Your task to perform on an android device: Toggle the flashlight Image 0: 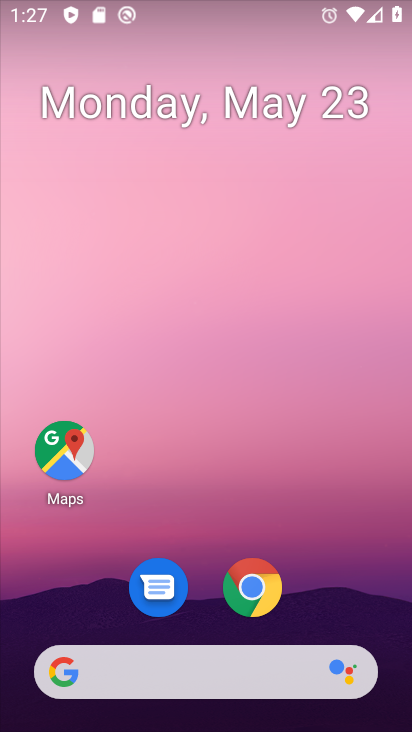
Step 0: drag from (341, 588) to (327, 78)
Your task to perform on an android device: Toggle the flashlight Image 1: 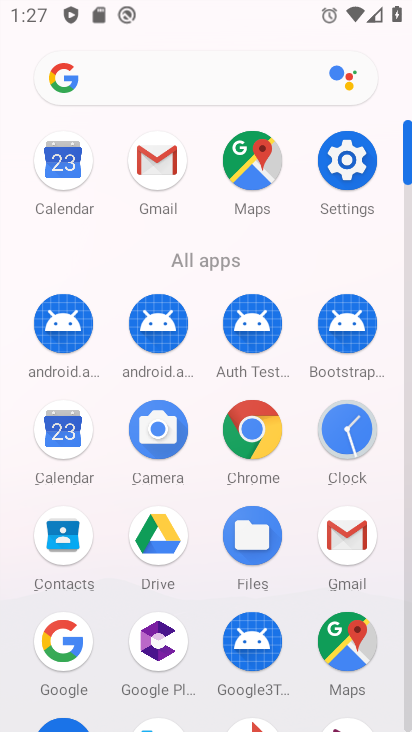
Step 1: click (363, 185)
Your task to perform on an android device: Toggle the flashlight Image 2: 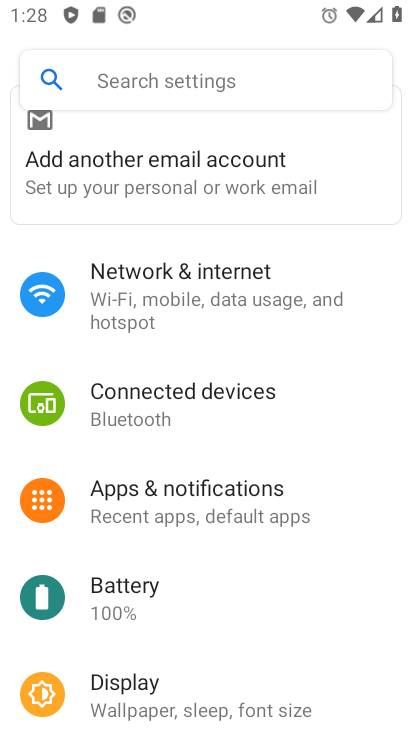
Step 2: task complete